Your task to perform on an android device: turn on javascript in the chrome app Image 0: 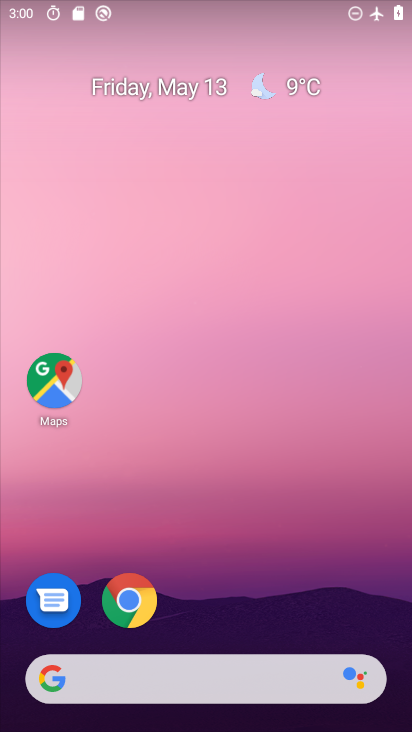
Step 0: drag from (184, 623) to (236, 136)
Your task to perform on an android device: turn on javascript in the chrome app Image 1: 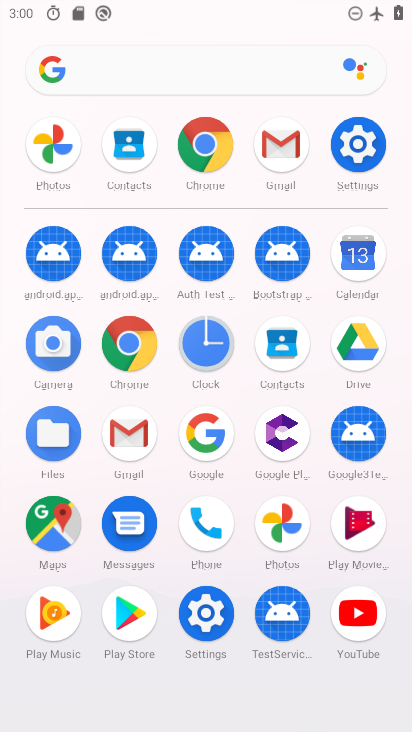
Step 1: click (123, 344)
Your task to perform on an android device: turn on javascript in the chrome app Image 2: 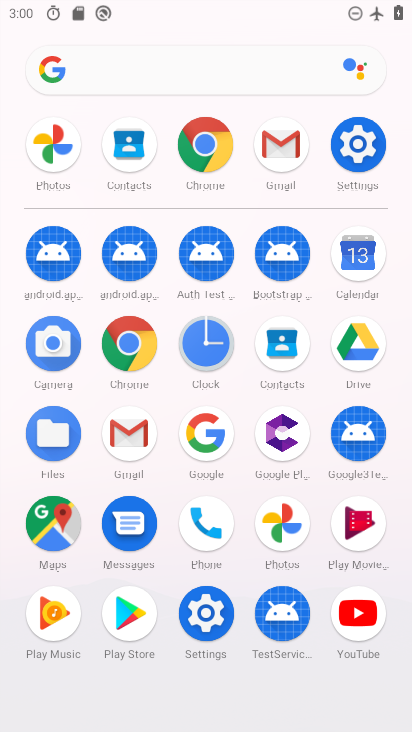
Step 2: click (123, 344)
Your task to perform on an android device: turn on javascript in the chrome app Image 3: 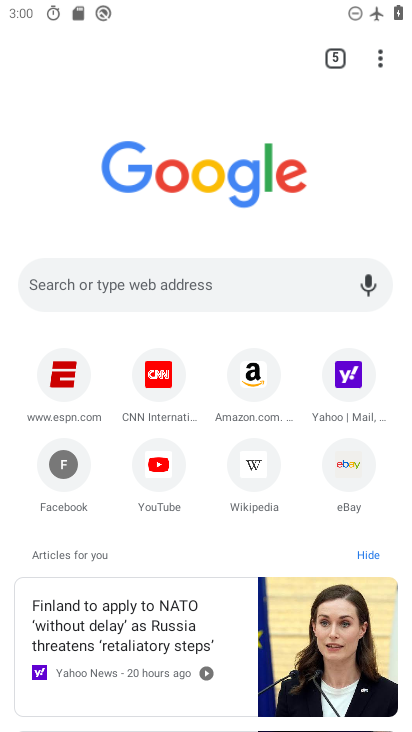
Step 3: drag from (380, 59) to (251, 480)
Your task to perform on an android device: turn on javascript in the chrome app Image 4: 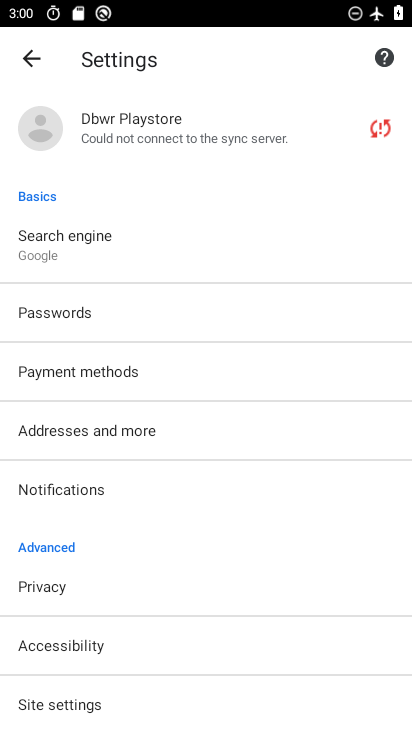
Step 4: drag from (186, 643) to (251, 261)
Your task to perform on an android device: turn on javascript in the chrome app Image 5: 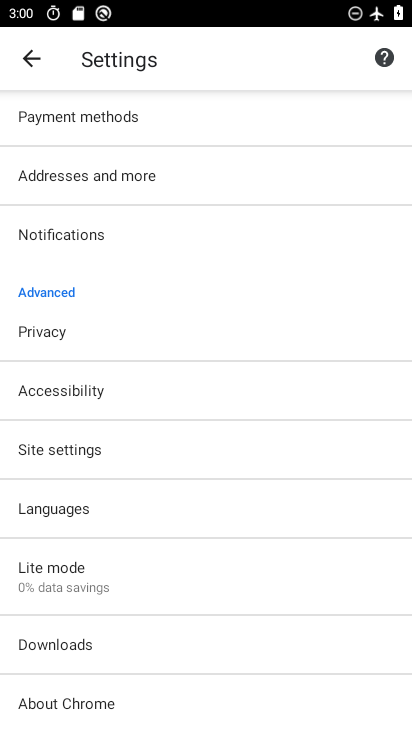
Step 5: click (129, 441)
Your task to perform on an android device: turn on javascript in the chrome app Image 6: 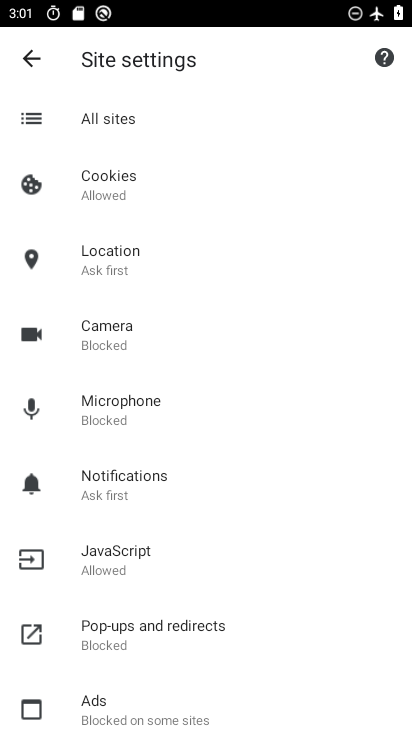
Step 6: click (141, 559)
Your task to perform on an android device: turn on javascript in the chrome app Image 7: 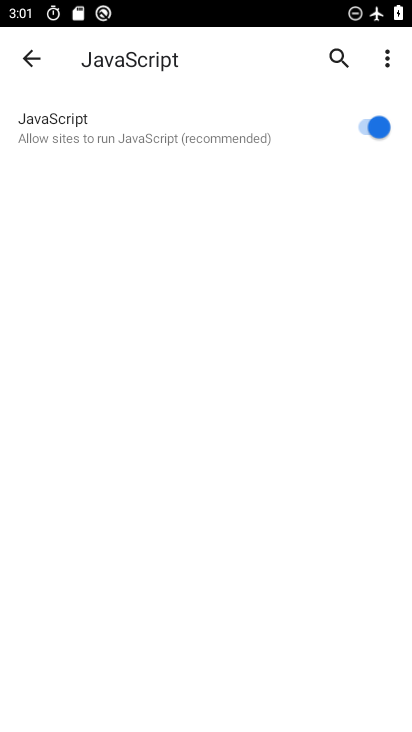
Step 7: task complete